Your task to perform on an android device: toggle show notifications on the lock screen Image 0: 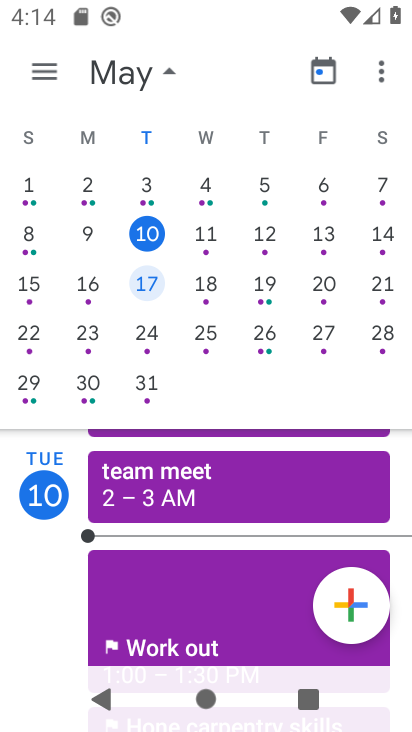
Step 0: press home button
Your task to perform on an android device: toggle show notifications on the lock screen Image 1: 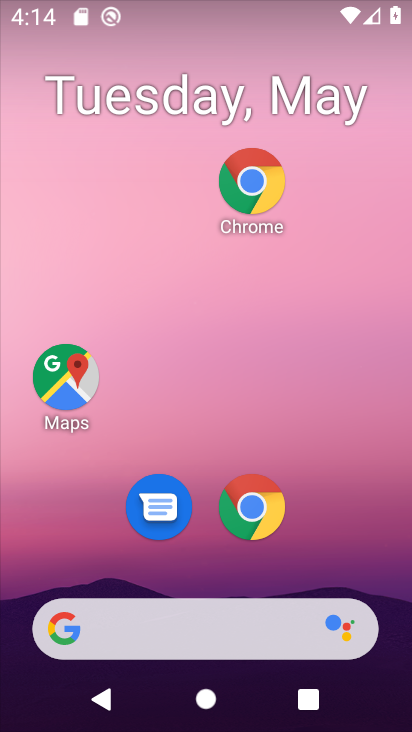
Step 1: drag from (341, 455) to (298, 88)
Your task to perform on an android device: toggle show notifications on the lock screen Image 2: 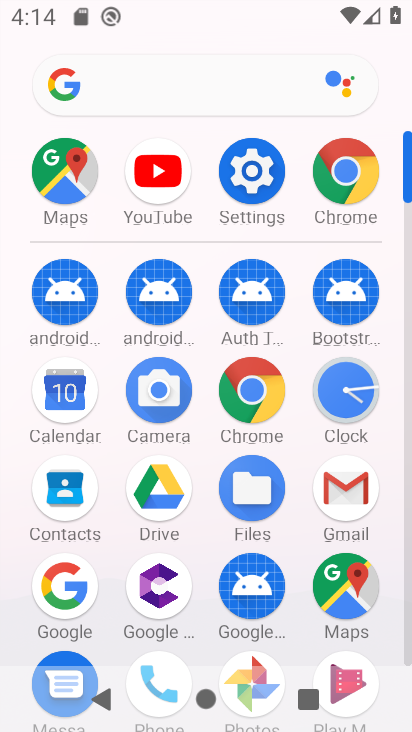
Step 2: click (257, 170)
Your task to perform on an android device: toggle show notifications on the lock screen Image 3: 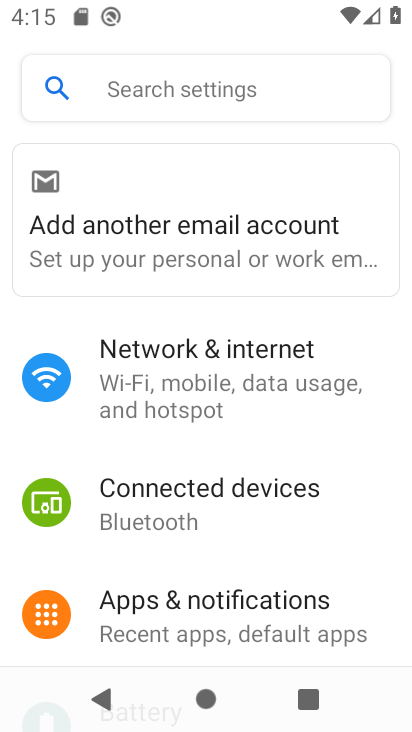
Step 3: drag from (225, 586) to (237, 322)
Your task to perform on an android device: toggle show notifications on the lock screen Image 4: 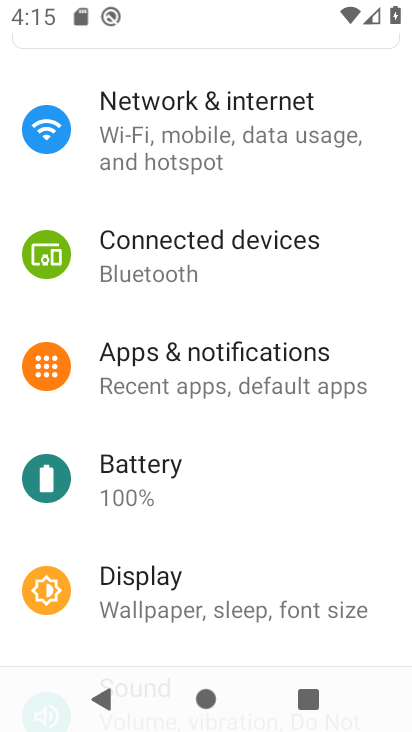
Step 4: click (270, 358)
Your task to perform on an android device: toggle show notifications on the lock screen Image 5: 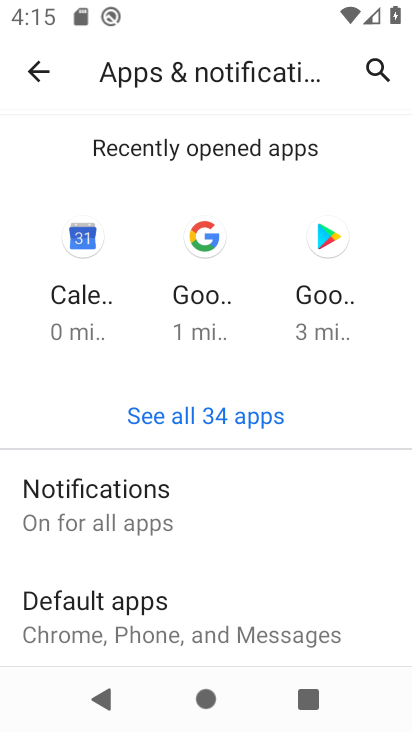
Step 5: drag from (257, 589) to (260, 295)
Your task to perform on an android device: toggle show notifications on the lock screen Image 6: 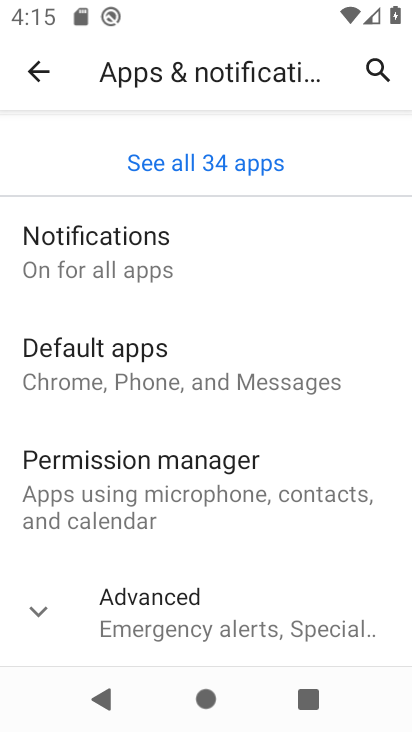
Step 6: drag from (202, 573) to (182, 342)
Your task to perform on an android device: toggle show notifications on the lock screen Image 7: 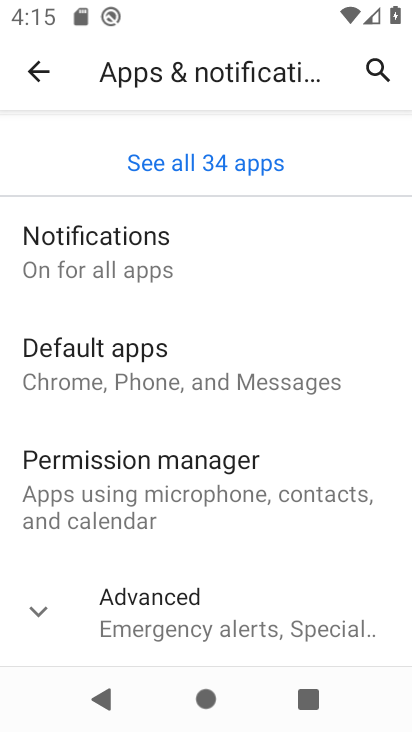
Step 7: click (84, 264)
Your task to perform on an android device: toggle show notifications on the lock screen Image 8: 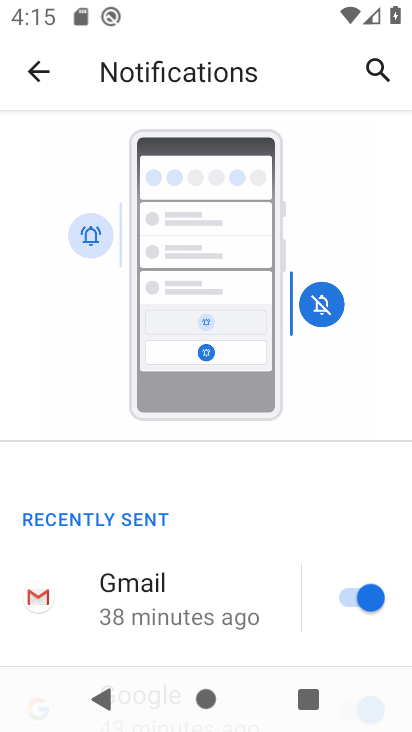
Step 8: drag from (181, 581) to (189, 249)
Your task to perform on an android device: toggle show notifications on the lock screen Image 9: 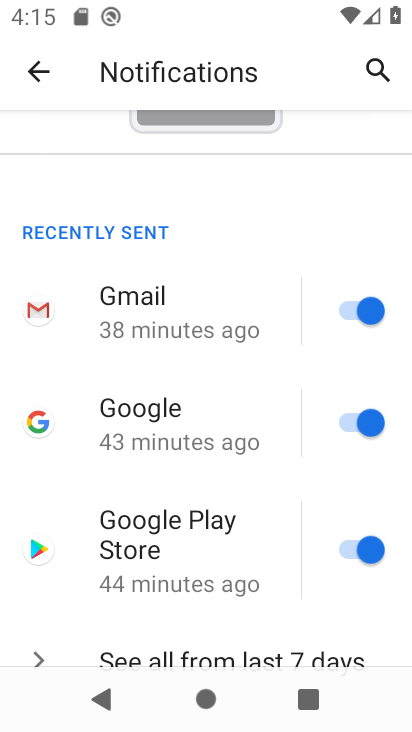
Step 9: drag from (192, 577) to (170, 217)
Your task to perform on an android device: toggle show notifications on the lock screen Image 10: 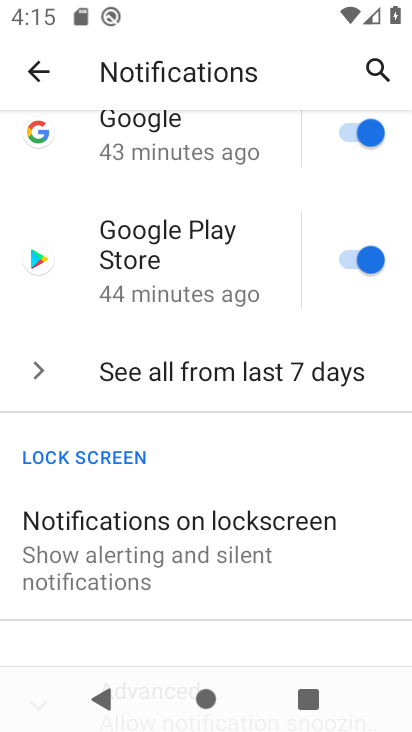
Step 10: click (194, 552)
Your task to perform on an android device: toggle show notifications on the lock screen Image 11: 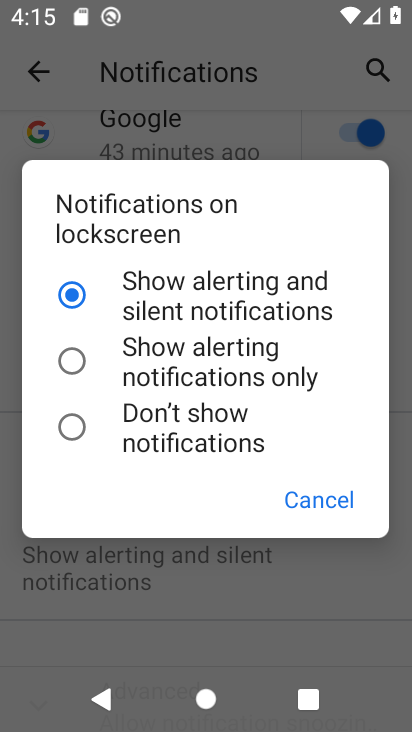
Step 11: click (76, 359)
Your task to perform on an android device: toggle show notifications on the lock screen Image 12: 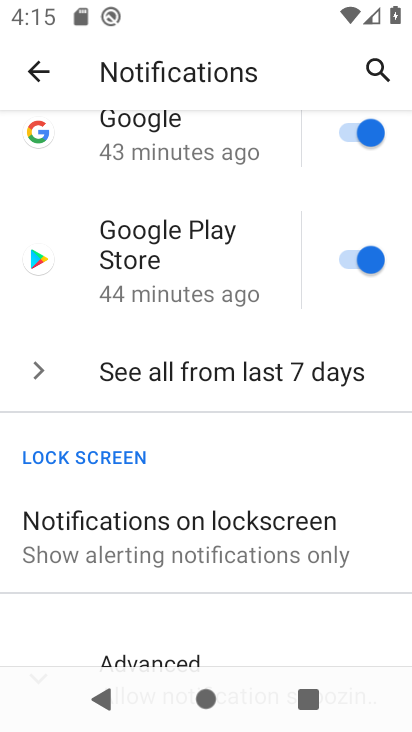
Step 12: task complete